Your task to perform on an android device: turn off location history Image 0: 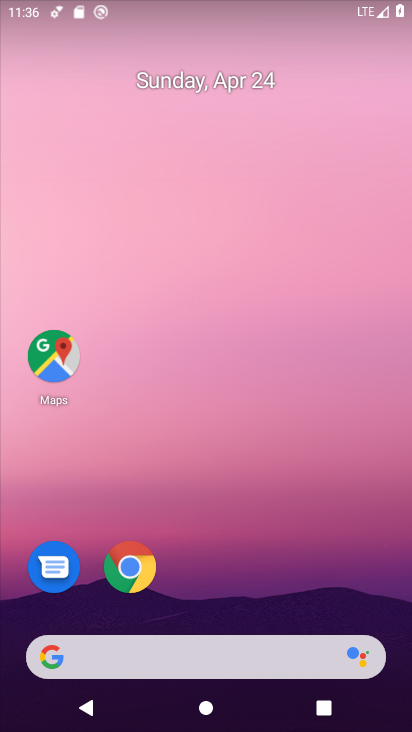
Step 0: drag from (243, 682) to (258, 132)
Your task to perform on an android device: turn off location history Image 1: 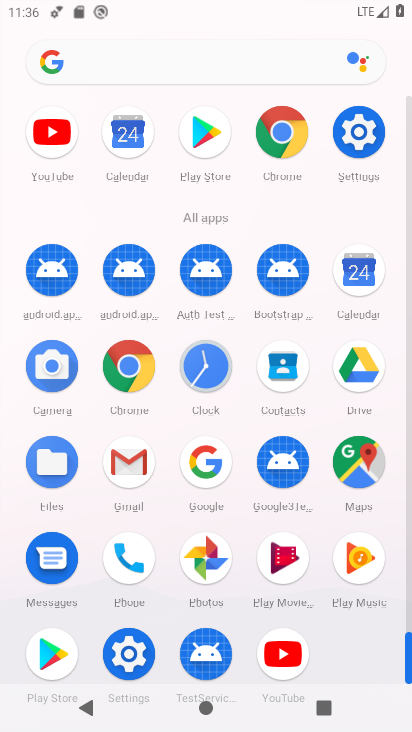
Step 1: click (357, 163)
Your task to perform on an android device: turn off location history Image 2: 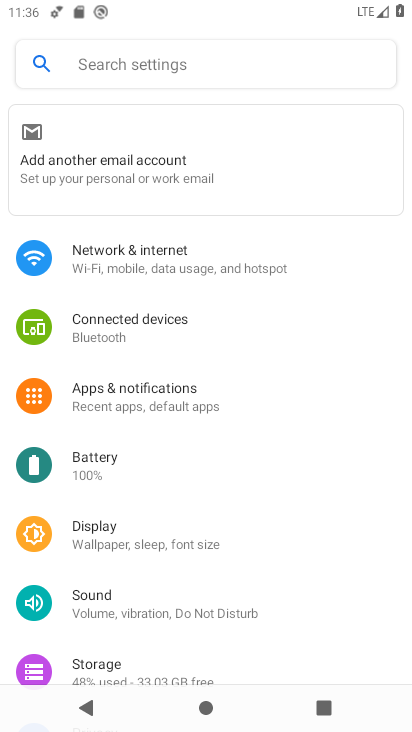
Step 2: drag from (256, 517) to (271, 303)
Your task to perform on an android device: turn off location history Image 3: 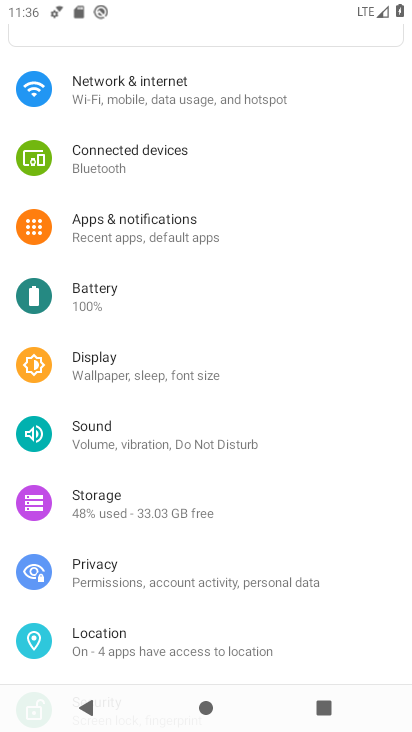
Step 3: click (176, 654)
Your task to perform on an android device: turn off location history Image 4: 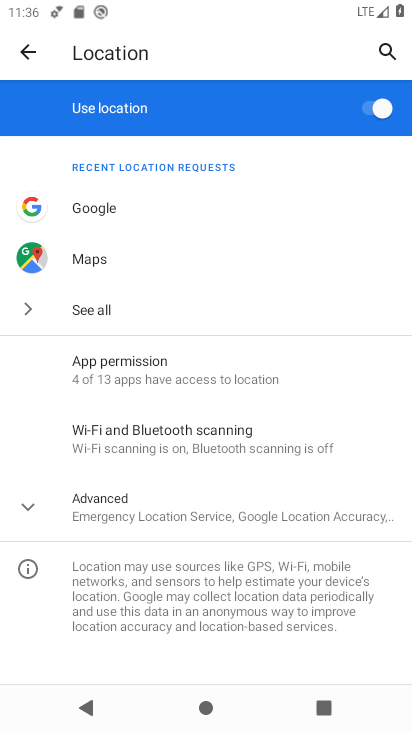
Step 4: click (180, 509)
Your task to perform on an android device: turn off location history Image 5: 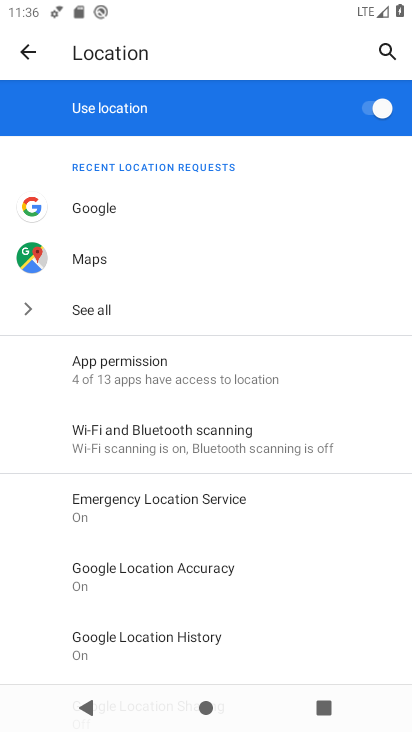
Step 5: drag from (209, 514) to (256, 317)
Your task to perform on an android device: turn off location history Image 6: 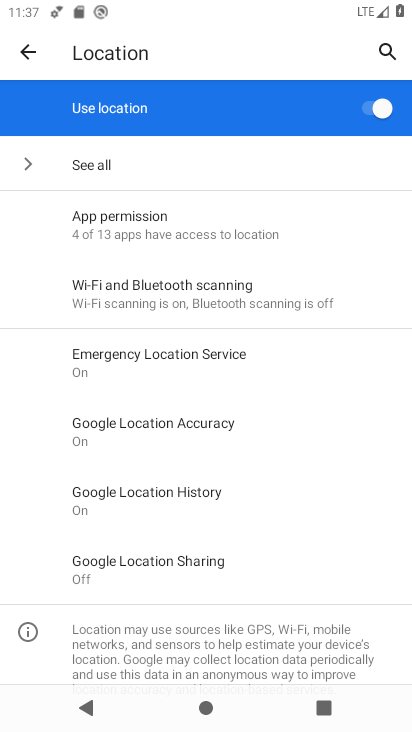
Step 6: click (222, 504)
Your task to perform on an android device: turn off location history Image 7: 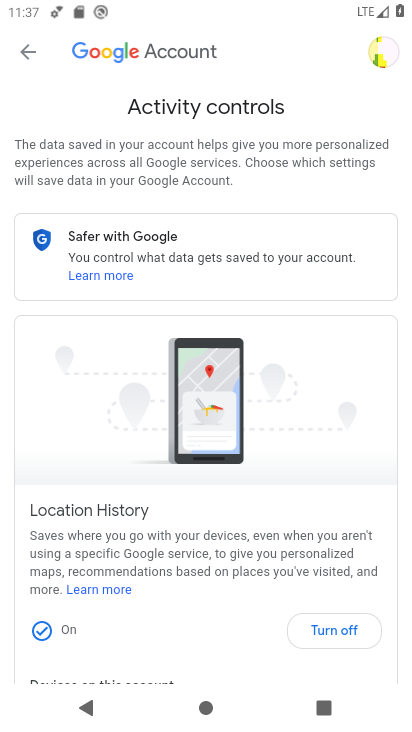
Step 7: click (350, 634)
Your task to perform on an android device: turn off location history Image 8: 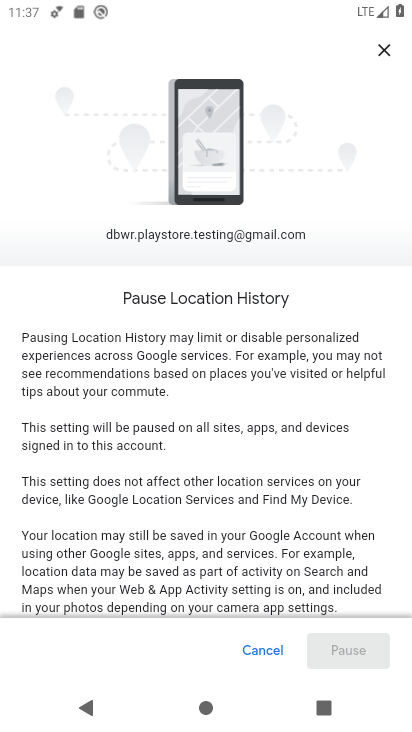
Step 8: drag from (312, 404) to (374, 124)
Your task to perform on an android device: turn off location history Image 9: 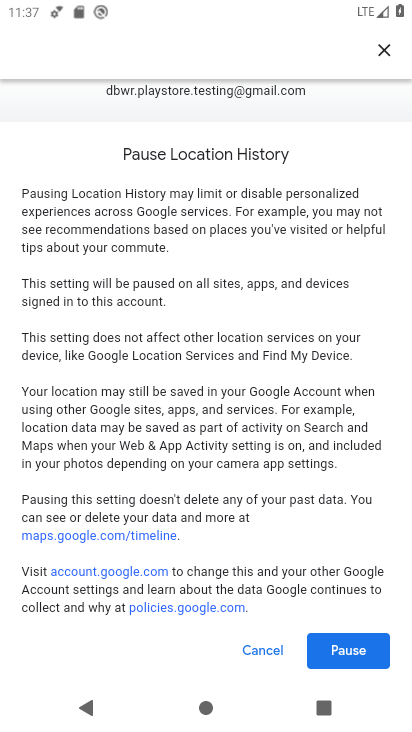
Step 9: drag from (263, 508) to (271, 286)
Your task to perform on an android device: turn off location history Image 10: 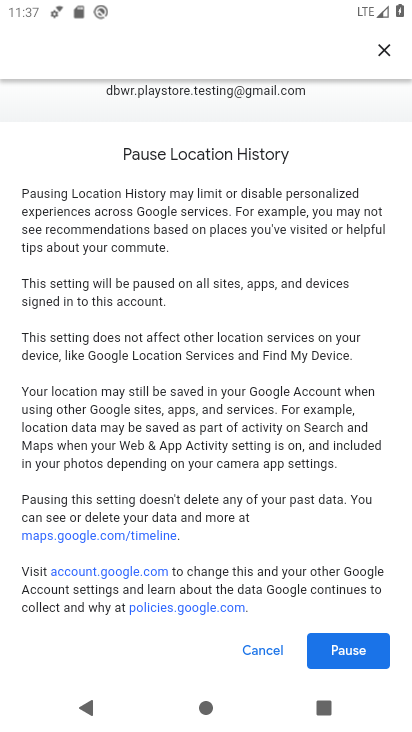
Step 10: click (363, 660)
Your task to perform on an android device: turn off location history Image 11: 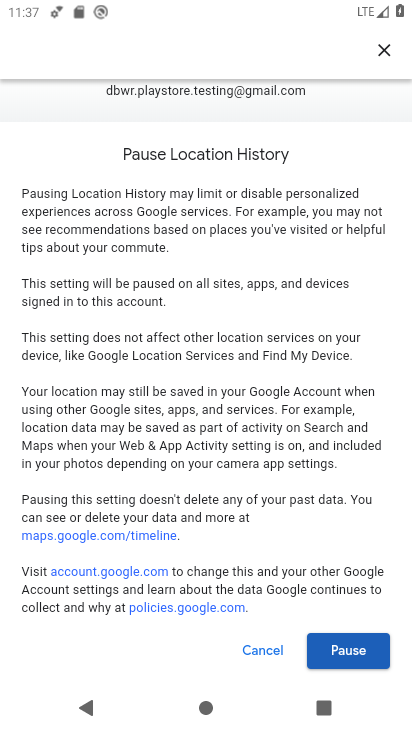
Step 11: click (364, 659)
Your task to perform on an android device: turn off location history Image 12: 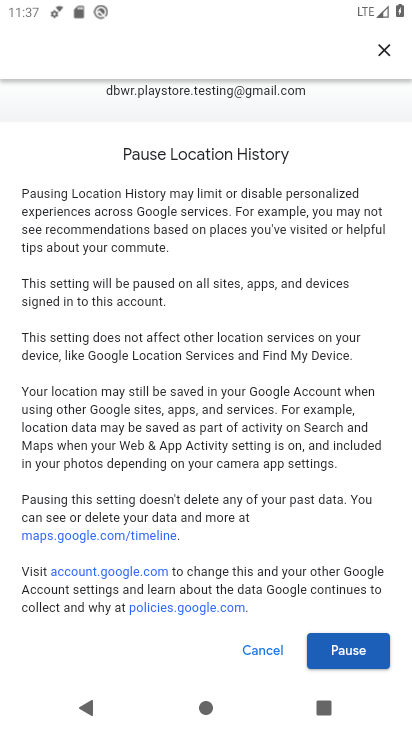
Step 12: click (363, 649)
Your task to perform on an android device: turn off location history Image 13: 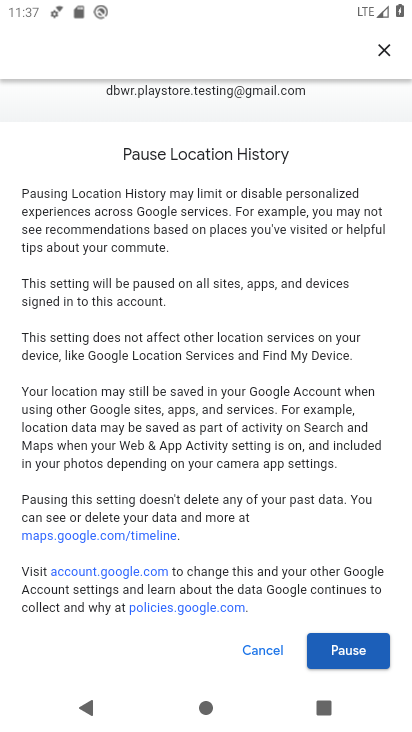
Step 13: click (368, 654)
Your task to perform on an android device: turn off location history Image 14: 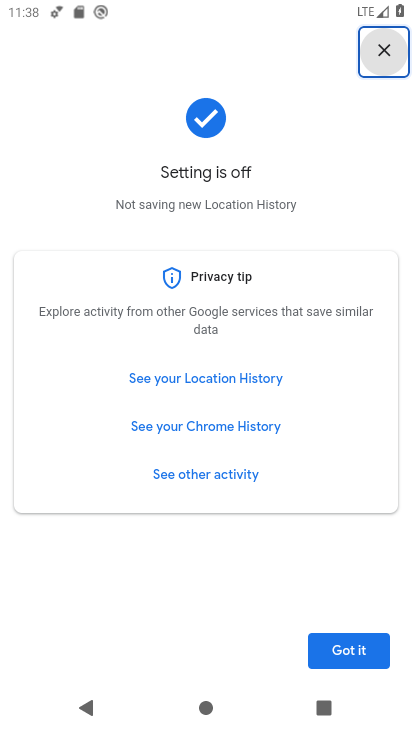
Step 14: click (370, 658)
Your task to perform on an android device: turn off location history Image 15: 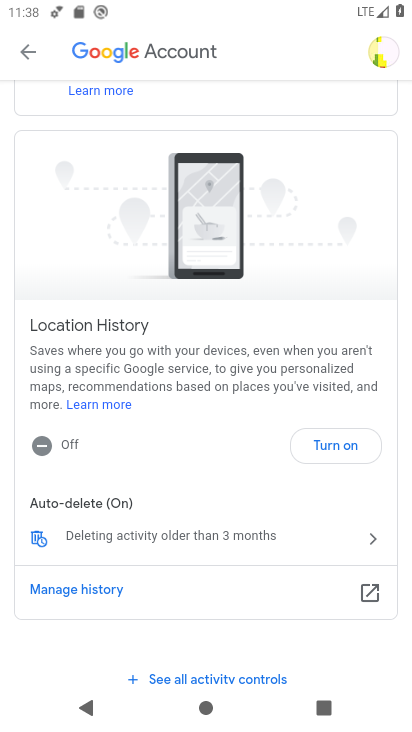
Step 15: task complete